Your task to perform on an android device: turn off smart reply in the gmail app Image 0: 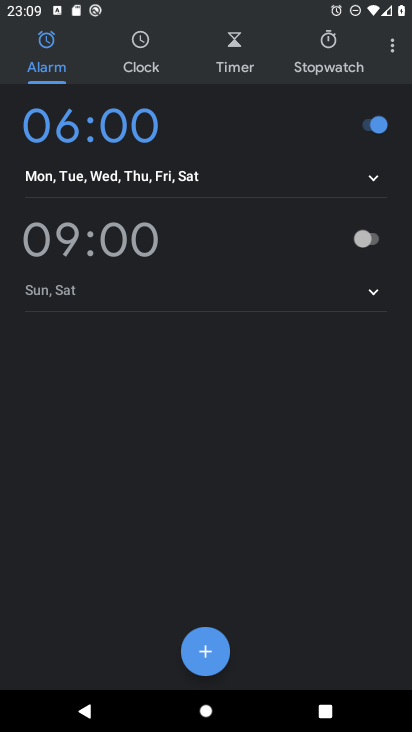
Step 0: press home button
Your task to perform on an android device: turn off smart reply in the gmail app Image 1: 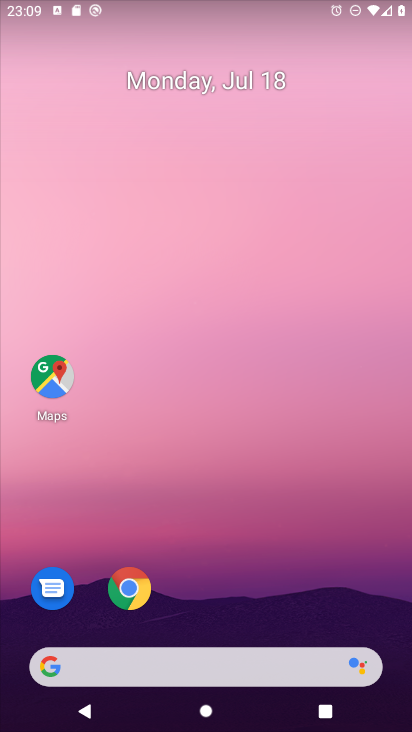
Step 1: drag from (399, 618) to (307, 190)
Your task to perform on an android device: turn off smart reply in the gmail app Image 2: 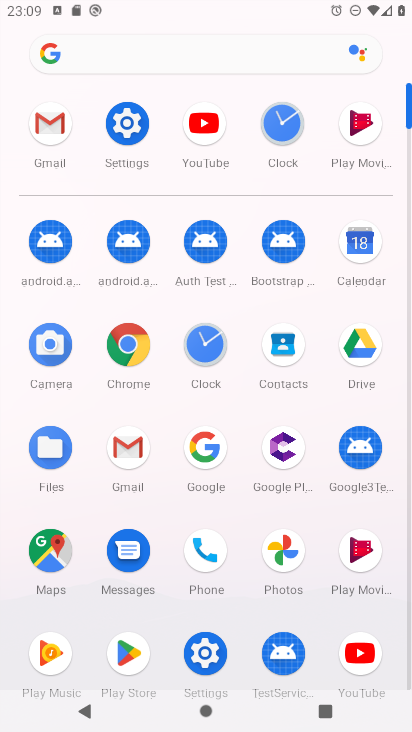
Step 2: click (126, 448)
Your task to perform on an android device: turn off smart reply in the gmail app Image 3: 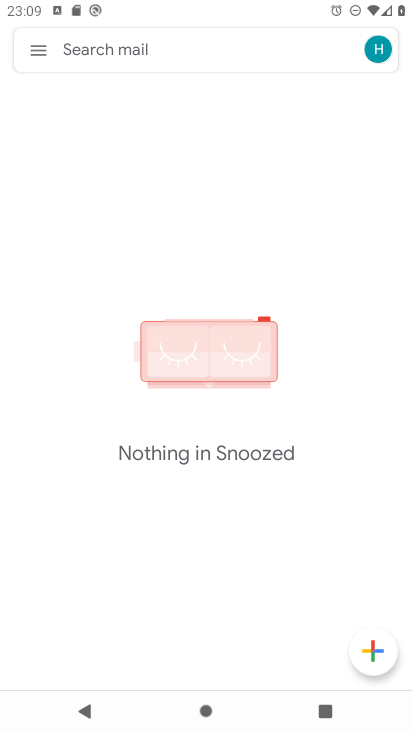
Step 3: click (37, 52)
Your task to perform on an android device: turn off smart reply in the gmail app Image 4: 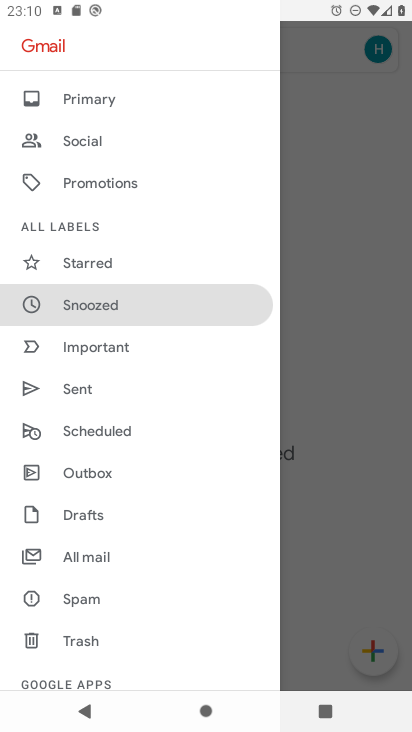
Step 4: drag from (126, 660) to (121, 455)
Your task to perform on an android device: turn off smart reply in the gmail app Image 5: 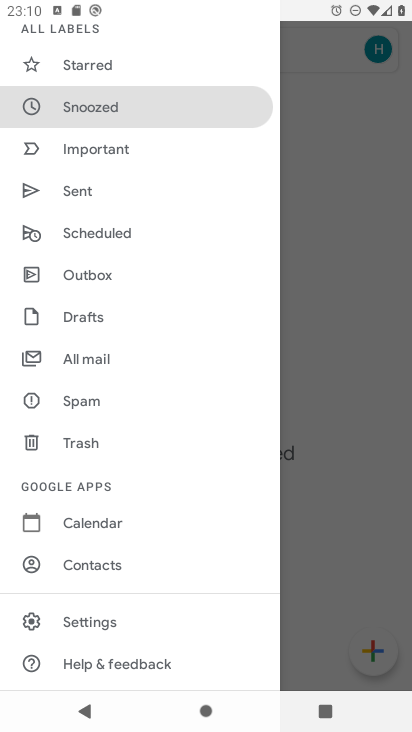
Step 5: click (86, 626)
Your task to perform on an android device: turn off smart reply in the gmail app Image 6: 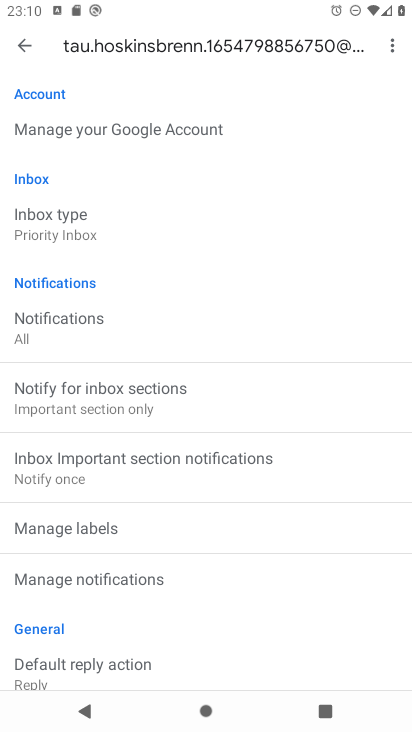
Step 6: drag from (234, 628) to (226, 245)
Your task to perform on an android device: turn off smart reply in the gmail app Image 7: 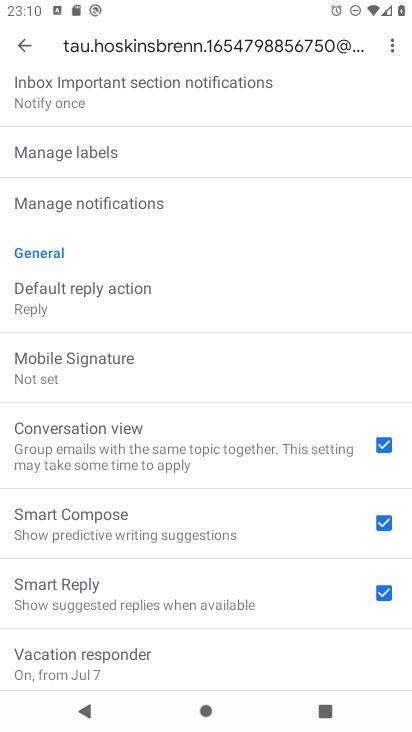
Step 7: click (381, 587)
Your task to perform on an android device: turn off smart reply in the gmail app Image 8: 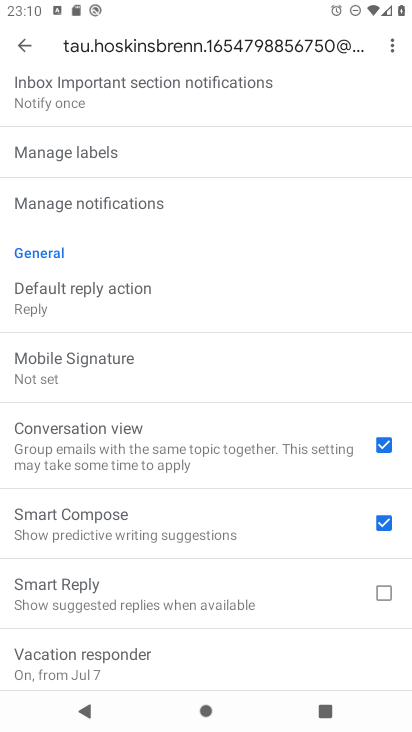
Step 8: task complete